Your task to perform on an android device: add a contact in the contacts app Image 0: 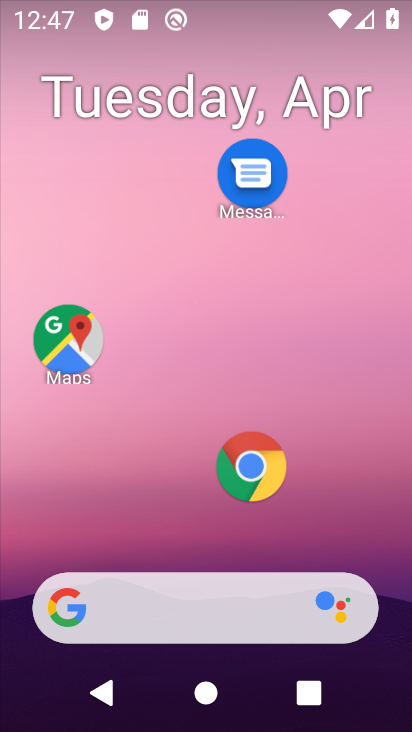
Step 0: drag from (309, 510) to (368, 65)
Your task to perform on an android device: add a contact in the contacts app Image 1: 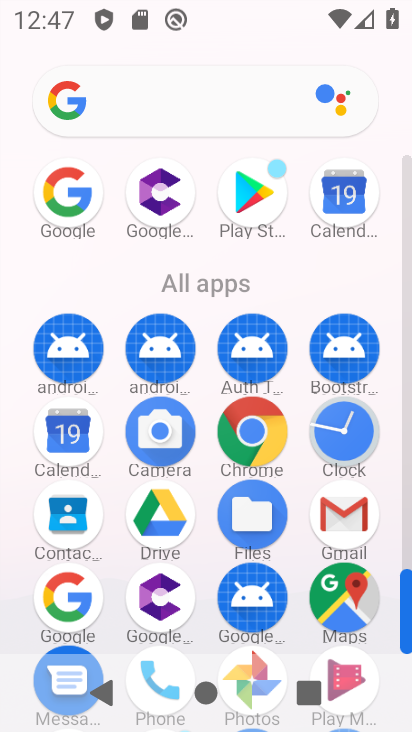
Step 1: click (47, 515)
Your task to perform on an android device: add a contact in the contacts app Image 2: 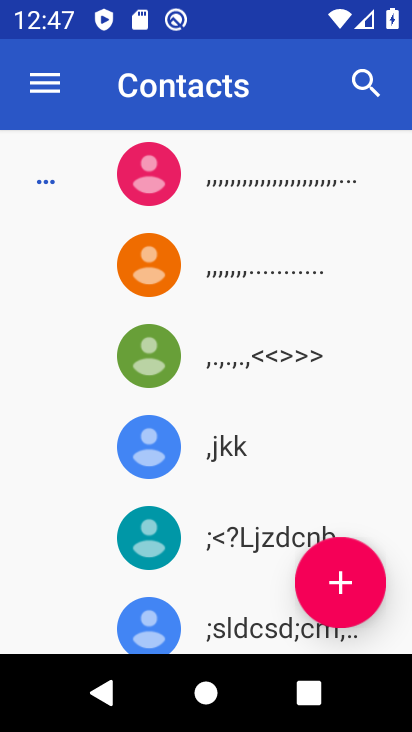
Step 2: click (315, 579)
Your task to perform on an android device: add a contact in the contacts app Image 3: 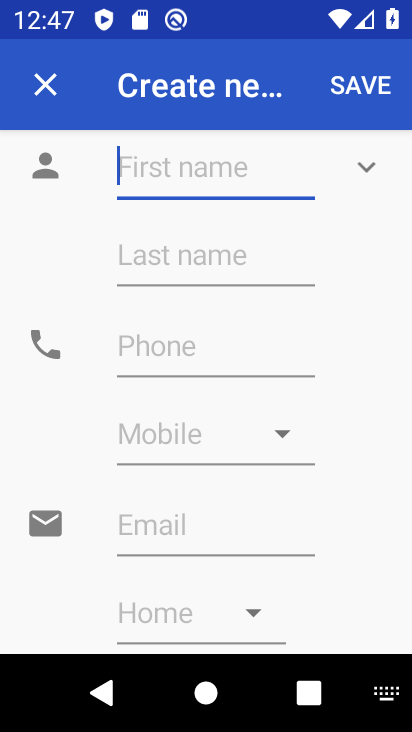
Step 3: type "mnmnmnmnm"
Your task to perform on an android device: add a contact in the contacts app Image 4: 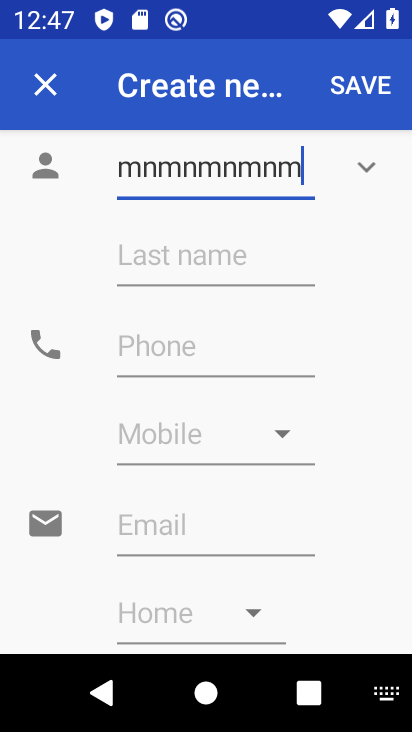
Step 4: click (158, 353)
Your task to perform on an android device: add a contact in the contacts app Image 5: 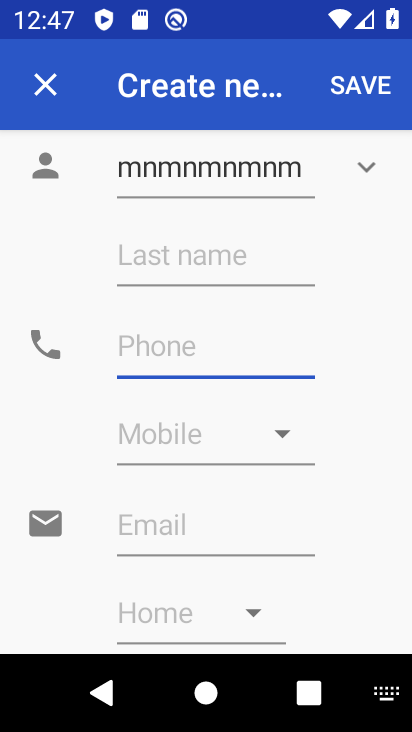
Step 5: type "01123456788"
Your task to perform on an android device: add a contact in the contacts app Image 6: 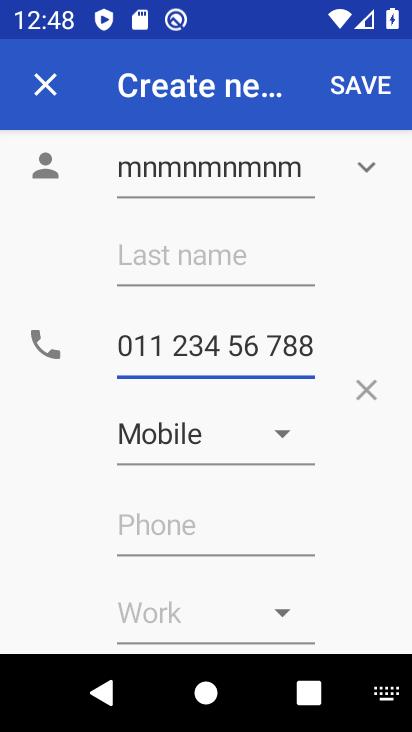
Step 6: click (325, 89)
Your task to perform on an android device: add a contact in the contacts app Image 7: 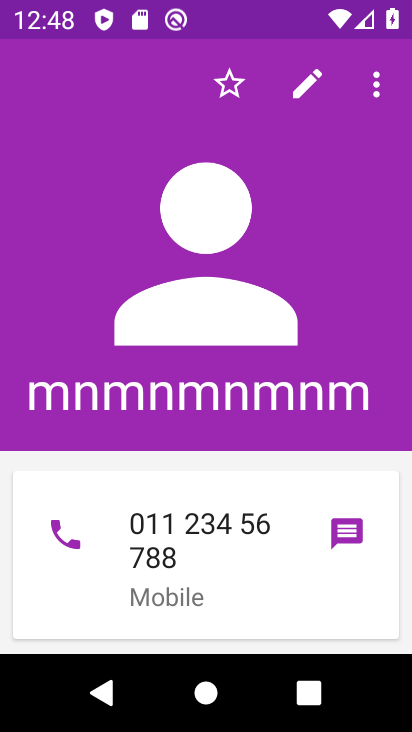
Step 7: task complete